Your task to perform on an android device: Open Chrome and go to the settings page Image 0: 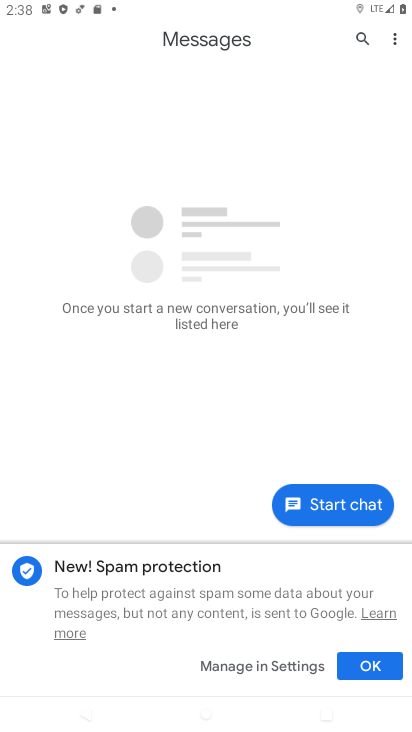
Step 0: press home button
Your task to perform on an android device: Open Chrome and go to the settings page Image 1: 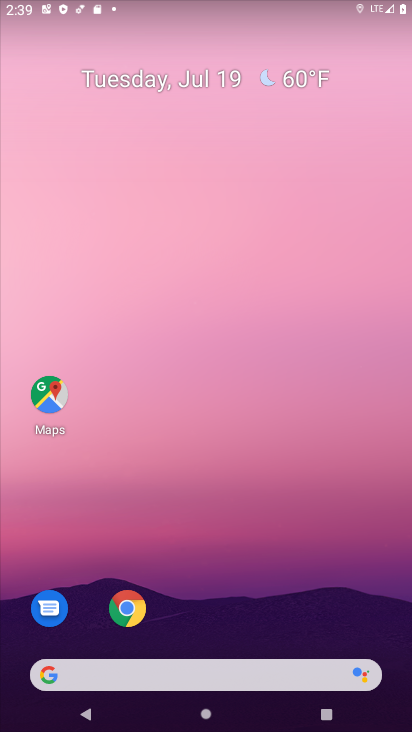
Step 1: drag from (310, 578) to (366, 16)
Your task to perform on an android device: Open Chrome and go to the settings page Image 2: 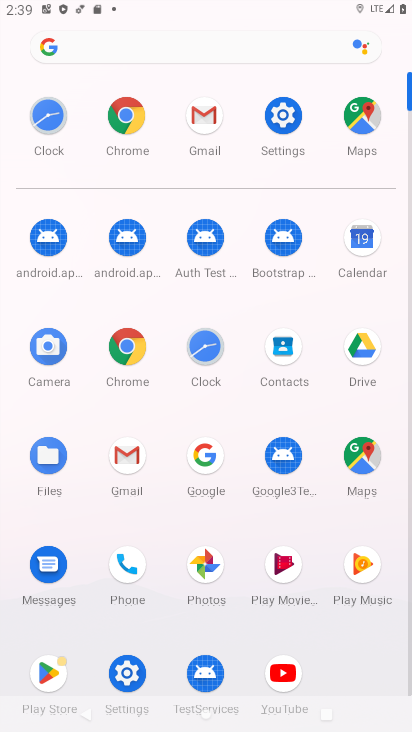
Step 2: click (109, 106)
Your task to perform on an android device: Open Chrome and go to the settings page Image 3: 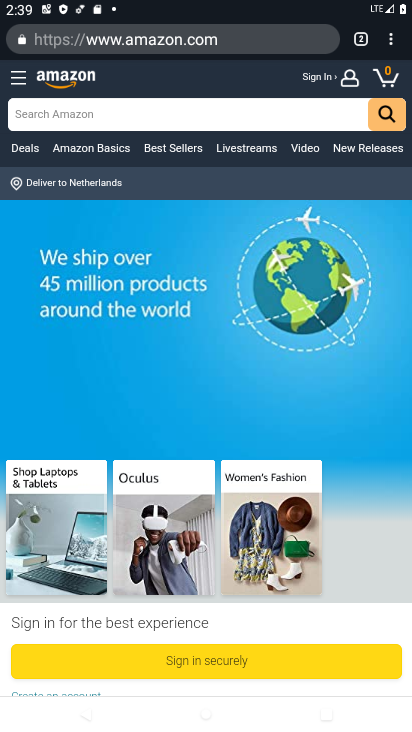
Step 3: task complete